Your task to perform on an android device: Open display settings Image 0: 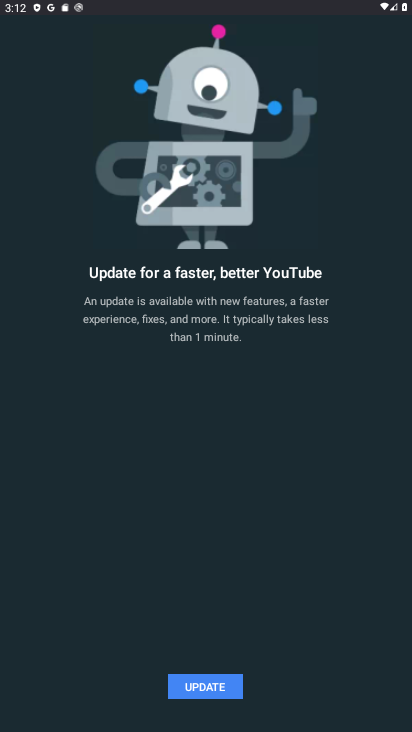
Step 0: press back button
Your task to perform on an android device: Open display settings Image 1: 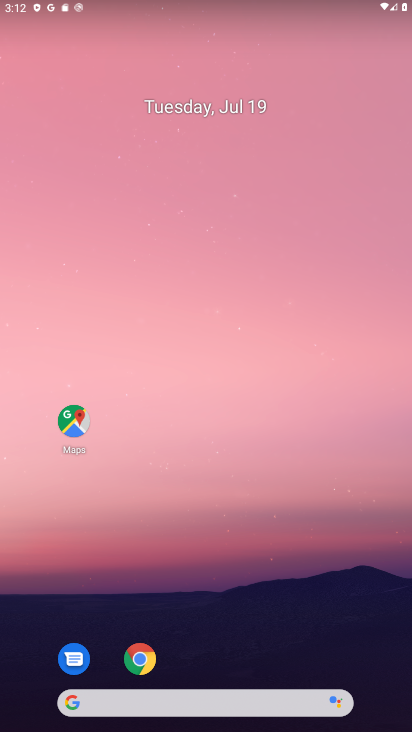
Step 1: drag from (218, 673) to (293, 175)
Your task to perform on an android device: Open display settings Image 2: 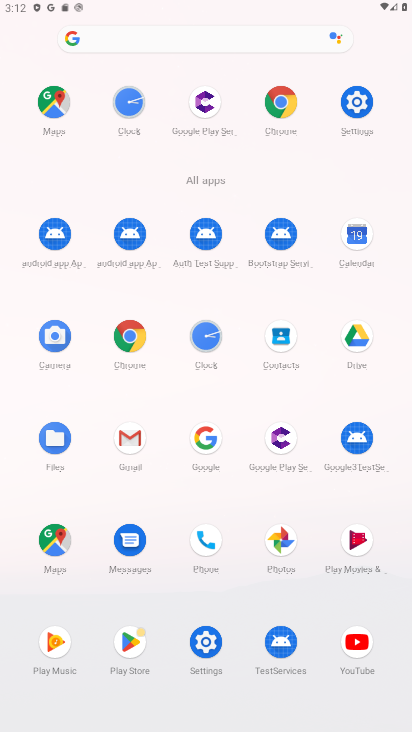
Step 2: click (194, 644)
Your task to perform on an android device: Open display settings Image 3: 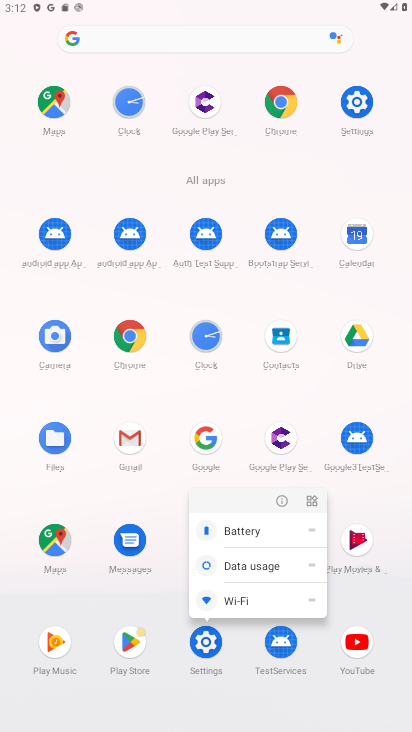
Step 3: click (199, 644)
Your task to perform on an android device: Open display settings Image 4: 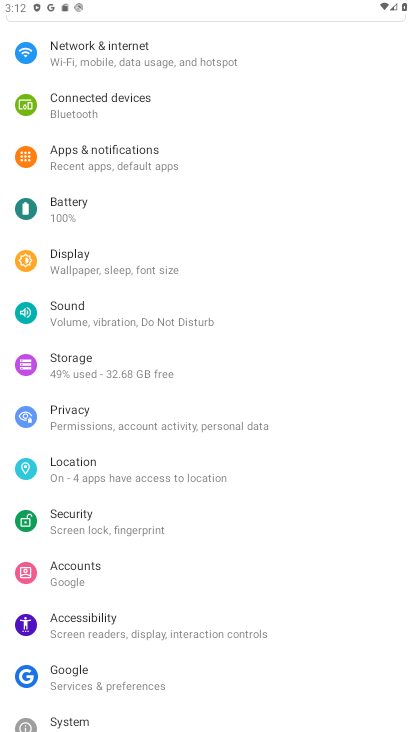
Step 4: click (122, 261)
Your task to perform on an android device: Open display settings Image 5: 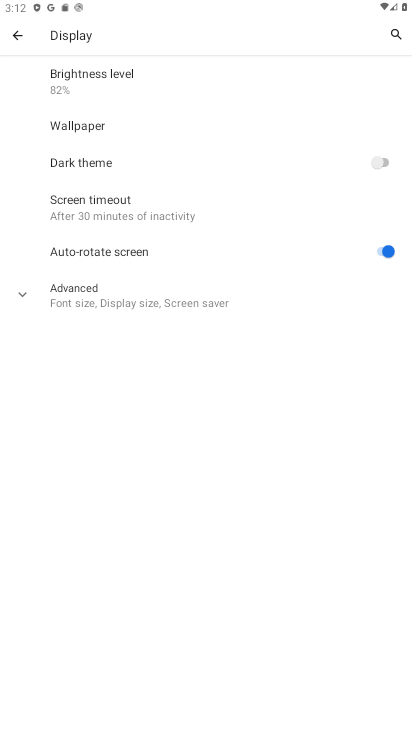
Step 5: click (218, 294)
Your task to perform on an android device: Open display settings Image 6: 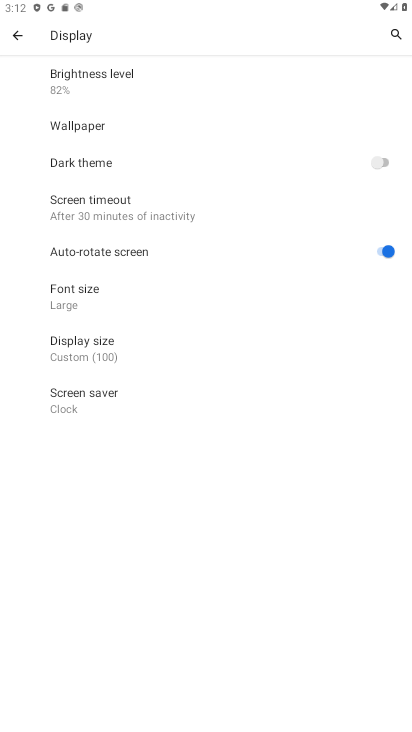
Step 6: task complete